Your task to perform on an android device: toggle translation in the chrome app Image 0: 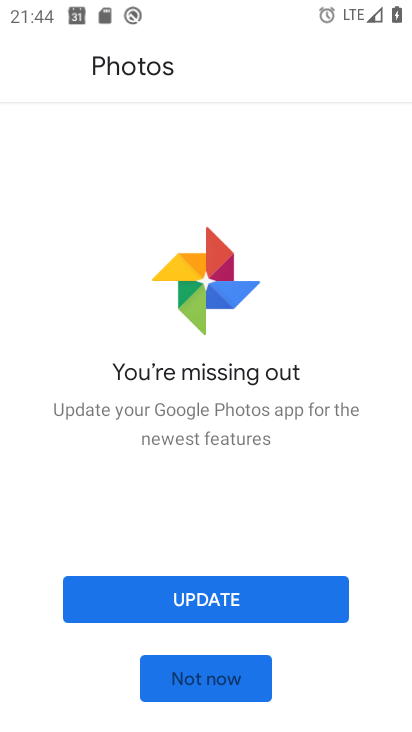
Step 0: press home button
Your task to perform on an android device: toggle translation in the chrome app Image 1: 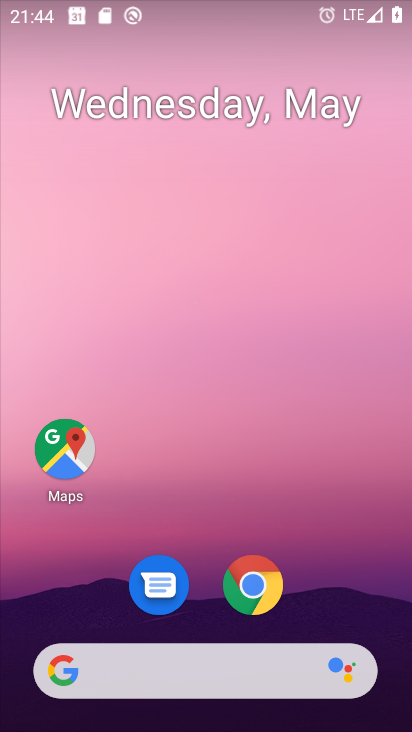
Step 1: click (275, 574)
Your task to perform on an android device: toggle translation in the chrome app Image 2: 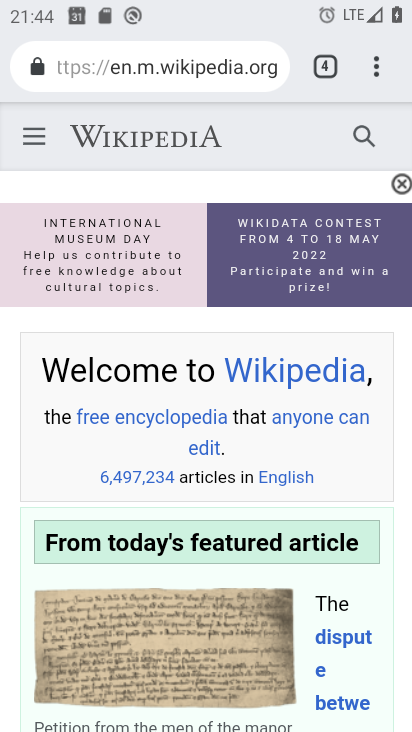
Step 2: click (378, 53)
Your task to perform on an android device: toggle translation in the chrome app Image 3: 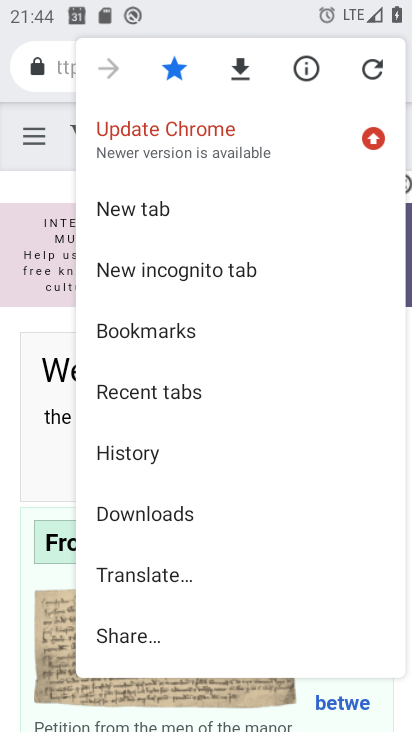
Step 3: drag from (255, 517) to (298, 214)
Your task to perform on an android device: toggle translation in the chrome app Image 4: 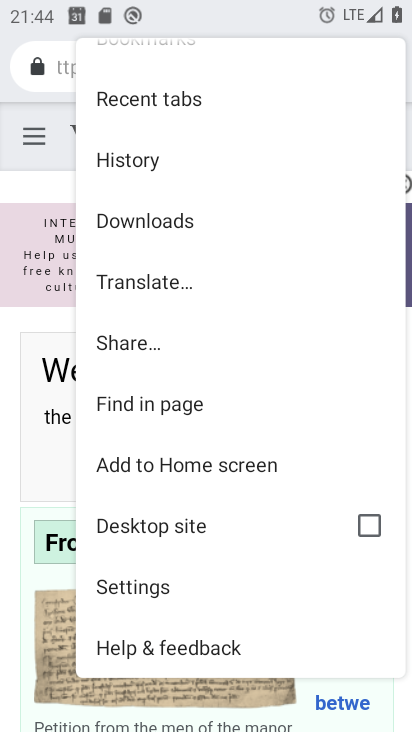
Step 4: click (159, 584)
Your task to perform on an android device: toggle translation in the chrome app Image 5: 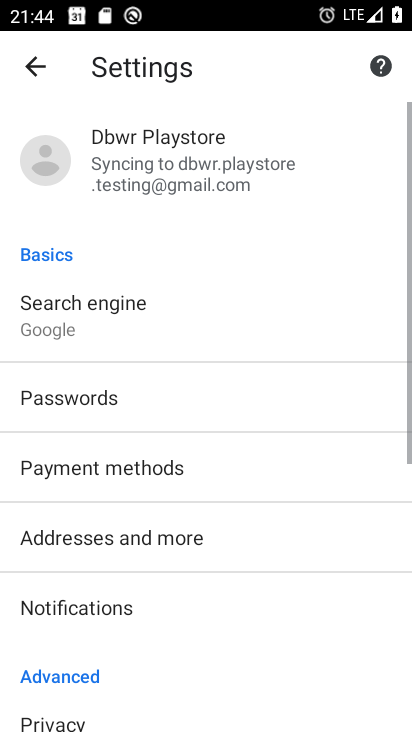
Step 5: drag from (212, 628) to (258, 247)
Your task to perform on an android device: toggle translation in the chrome app Image 6: 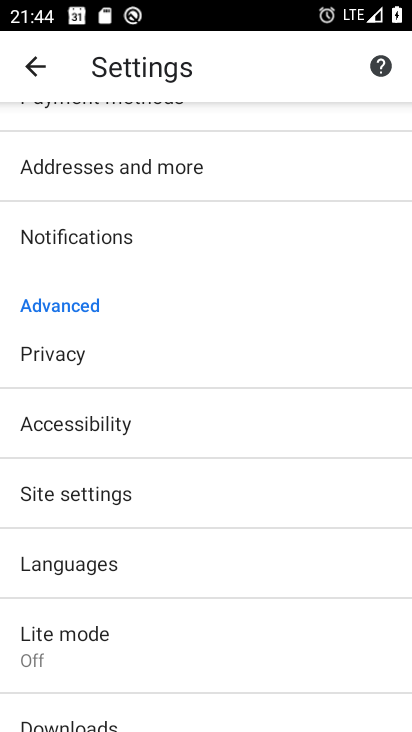
Step 6: click (200, 548)
Your task to perform on an android device: toggle translation in the chrome app Image 7: 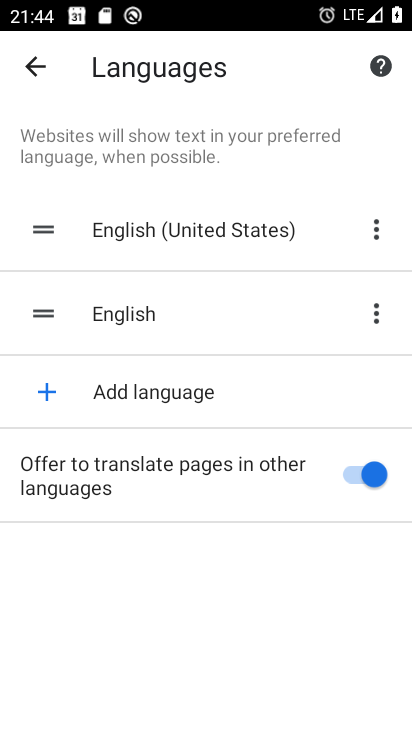
Step 7: click (350, 463)
Your task to perform on an android device: toggle translation in the chrome app Image 8: 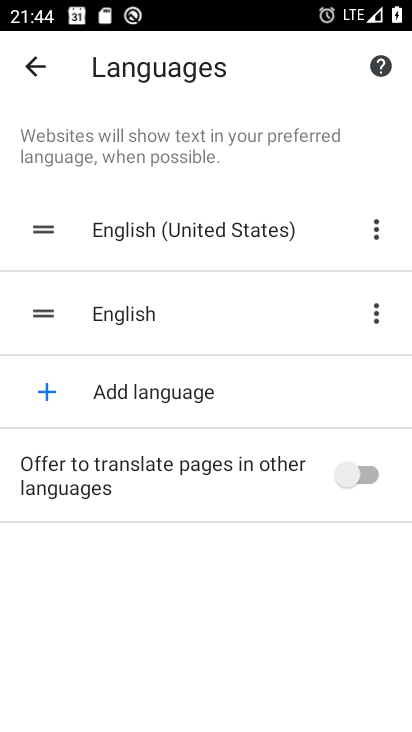
Step 8: task complete